Your task to perform on an android device: change your default location settings in chrome Image 0: 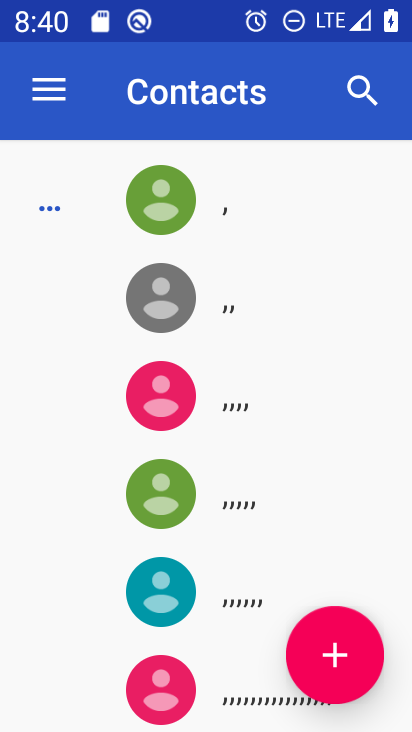
Step 0: press home button
Your task to perform on an android device: change your default location settings in chrome Image 1: 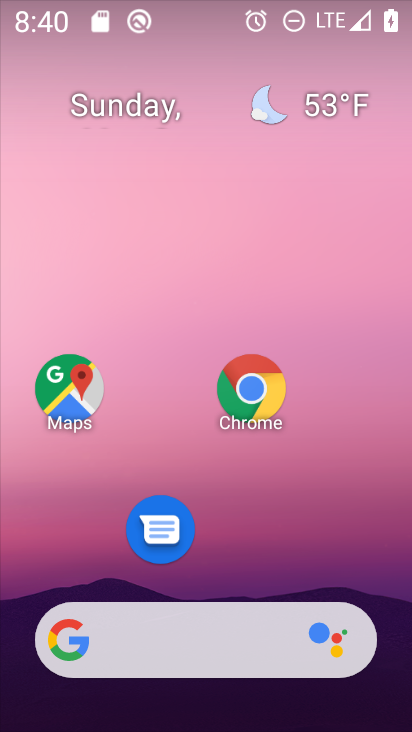
Step 1: click (256, 389)
Your task to perform on an android device: change your default location settings in chrome Image 2: 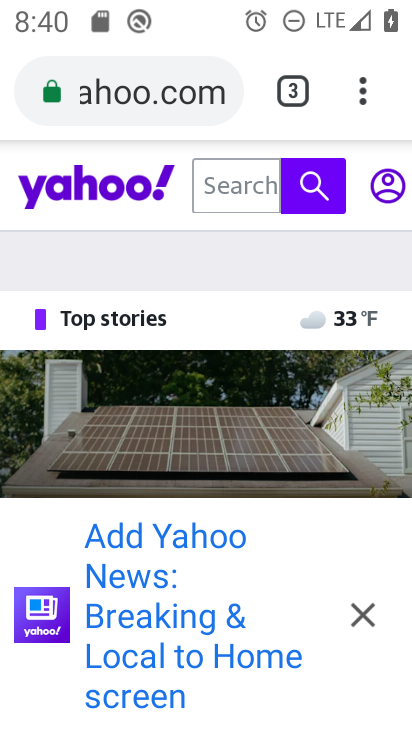
Step 2: click (357, 94)
Your task to perform on an android device: change your default location settings in chrome Image 3: 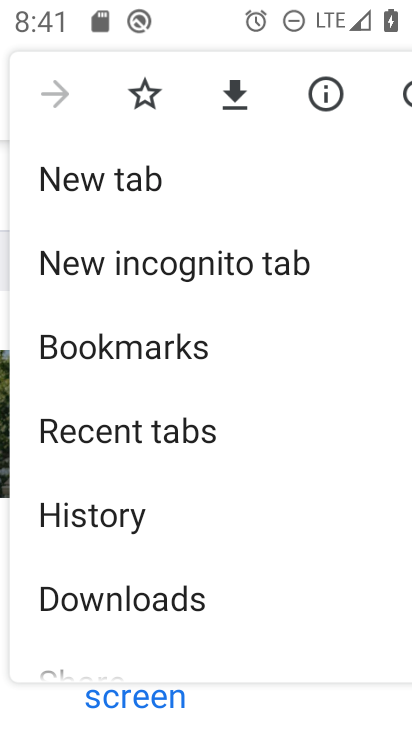
Step 3: drag from (131, 554) to (191, 261)
Your task to perform on an android device: change your default location settings in chrome Image 4: 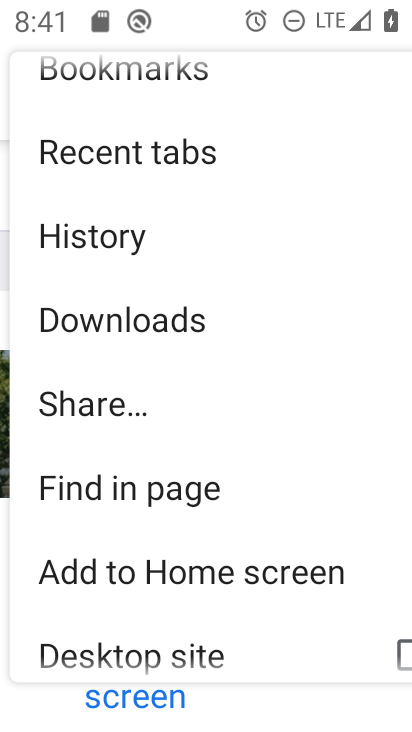
Step 4: drag from (149, 539) to (179, 306)
Your task to perform on an android device: change your default location settings in chrome Image 5: 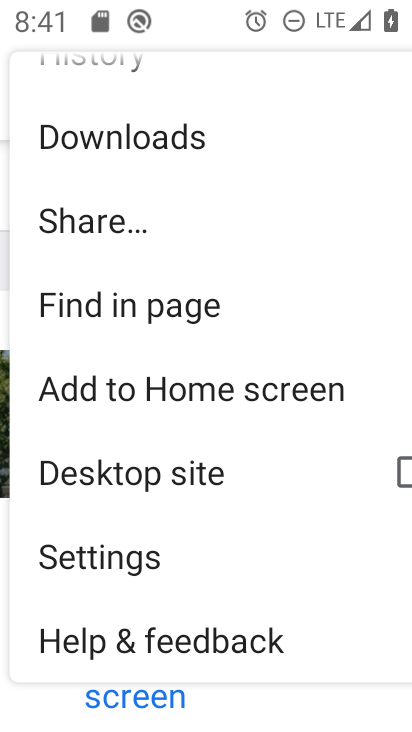
Step 5: click (129, 565)
Your task to perform on an android device: change your default location settings in chrome Image 6: 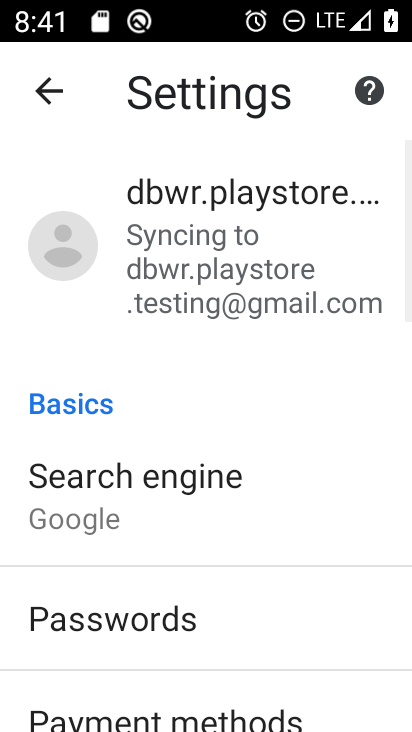
Step 6: drag from (154, 555) to (193, 271)
Your task to perform on an android device: change your default location settings in chrome Image 7: 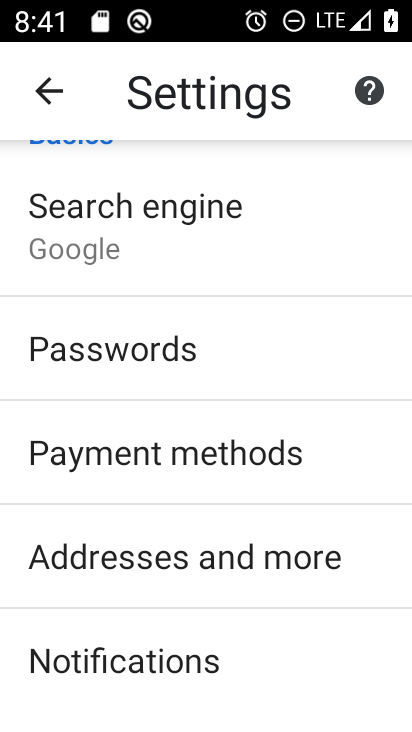
Step 7: drag from (139, 550) to (190, 330)
Your task to perform on an android device: change your default location settings in chrome Image 8: 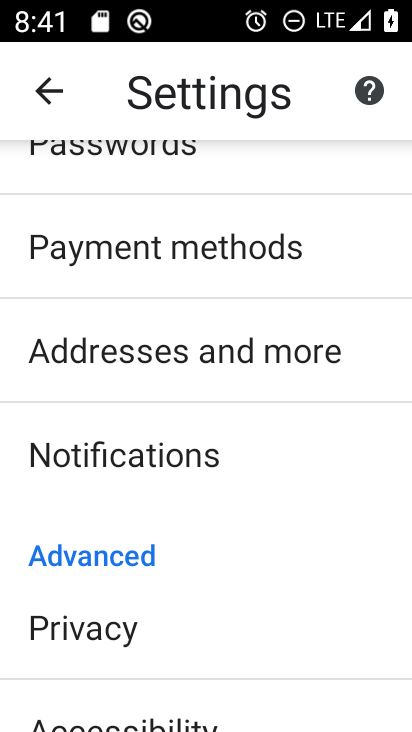
Step 8: drag from (115, 621) to (187, 174)
Your task to perform on an android device: change your default location settings in chrome Image 9: 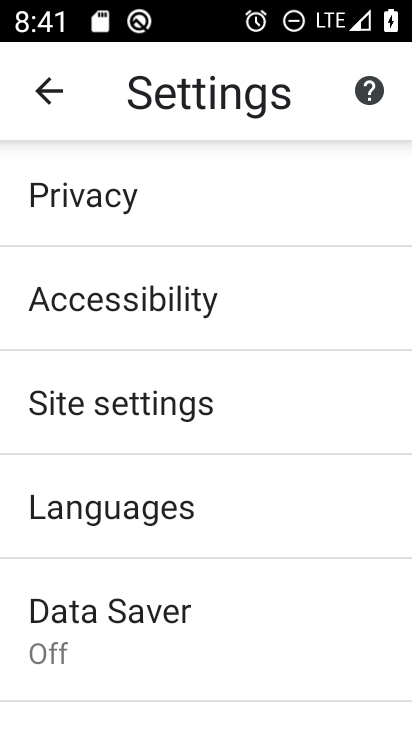
Step 9: click (133, 386)
Your task to perform on an android device: change your default location settings in chrome Image 10: 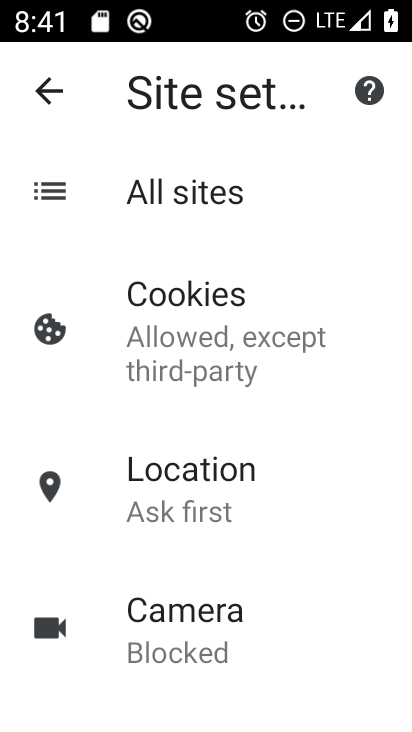
Step 10: click (213, 518)
Your task to perform on an android device: change your default location settings in chrome Image 11: 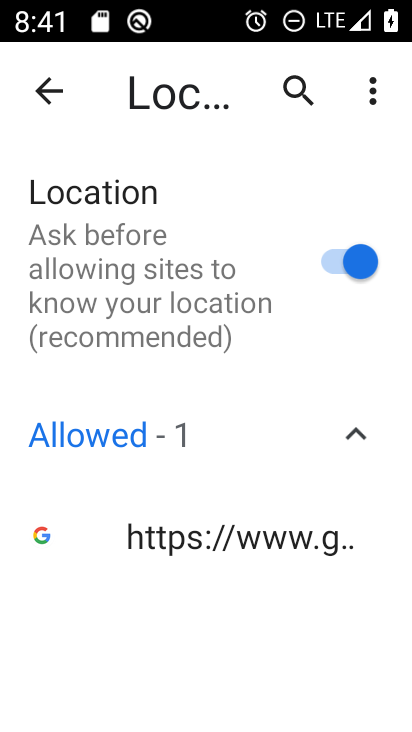
Step 11: click (325, 265)
Your task to perform on an android device: change your default location settings in chrome Image 12: 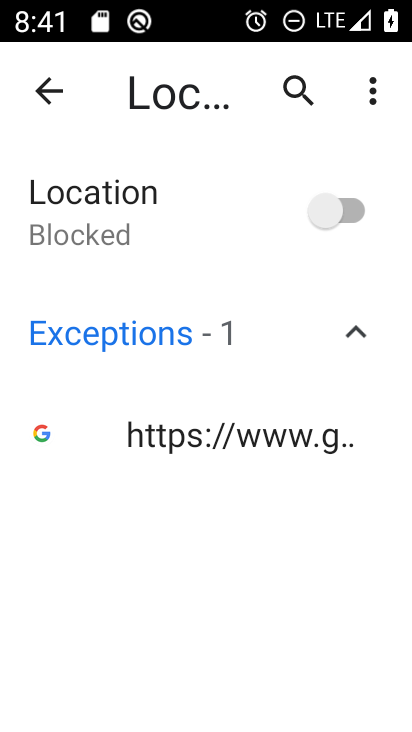
Step 12: task complete